Your task to perform on an android device: all mails in gmail Image 0: 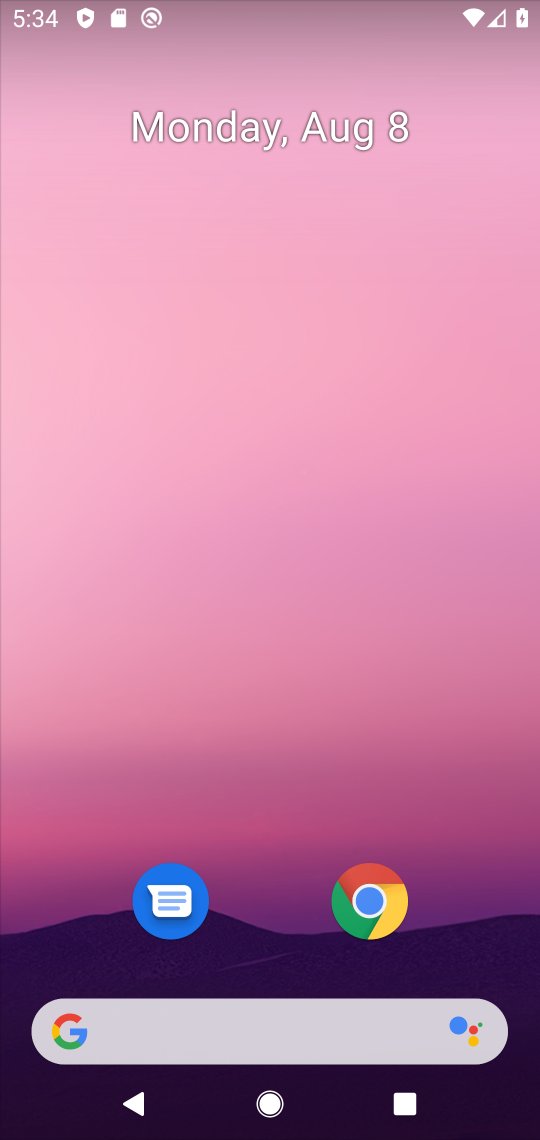
Step 0: drag from (467, 917) to (361, 220)
Your task to perform on an android device: all mails in gmail Image 1: 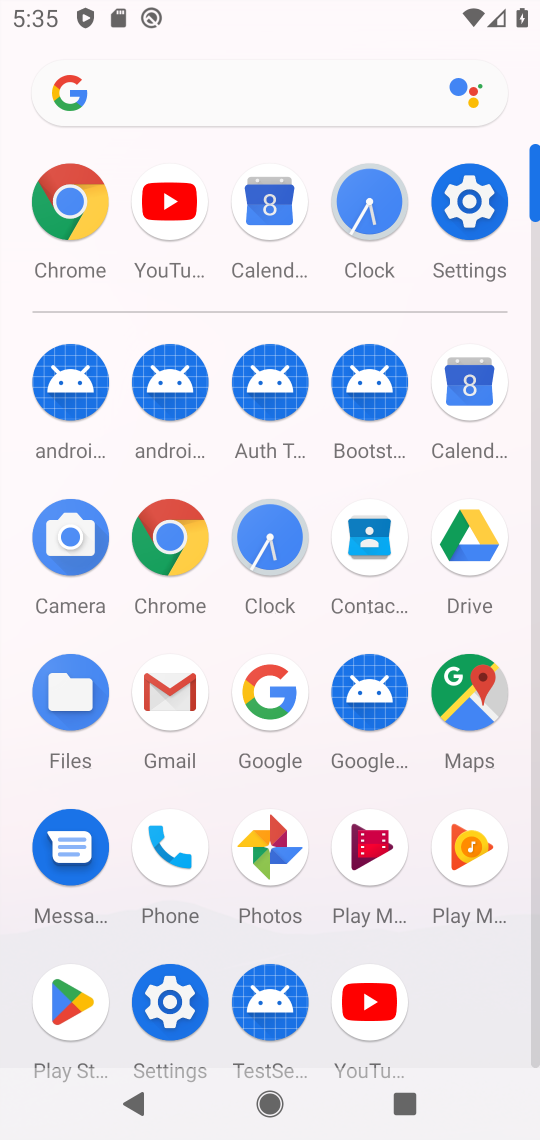
Step 1: click (154, 678)
Your task to perform on an android device: all mails in gmail Image 2: 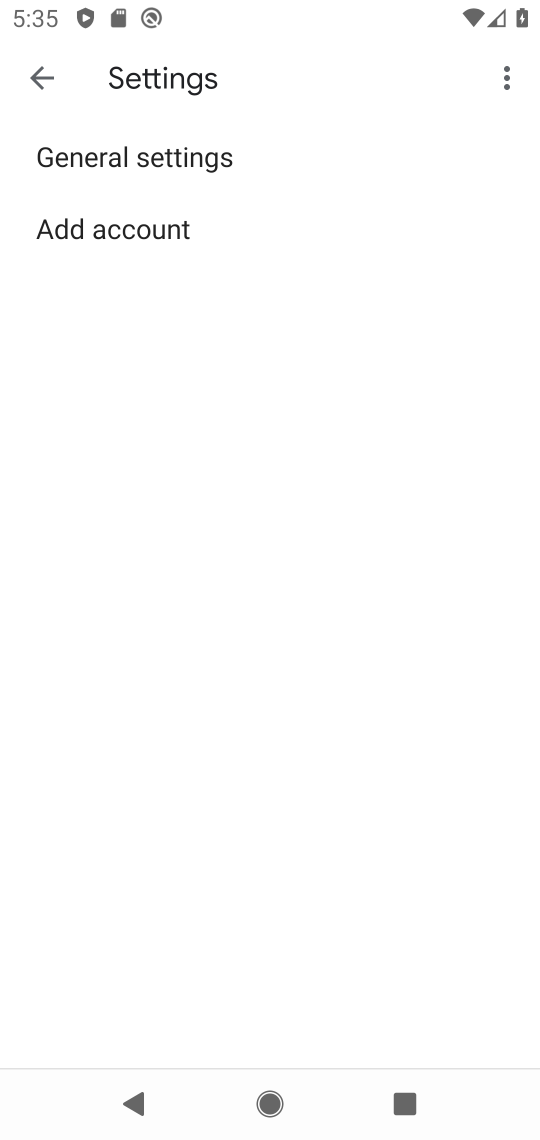
Step 2: click (43, 90)
Your task to perform on an android device: all mails in gmail Image 3: 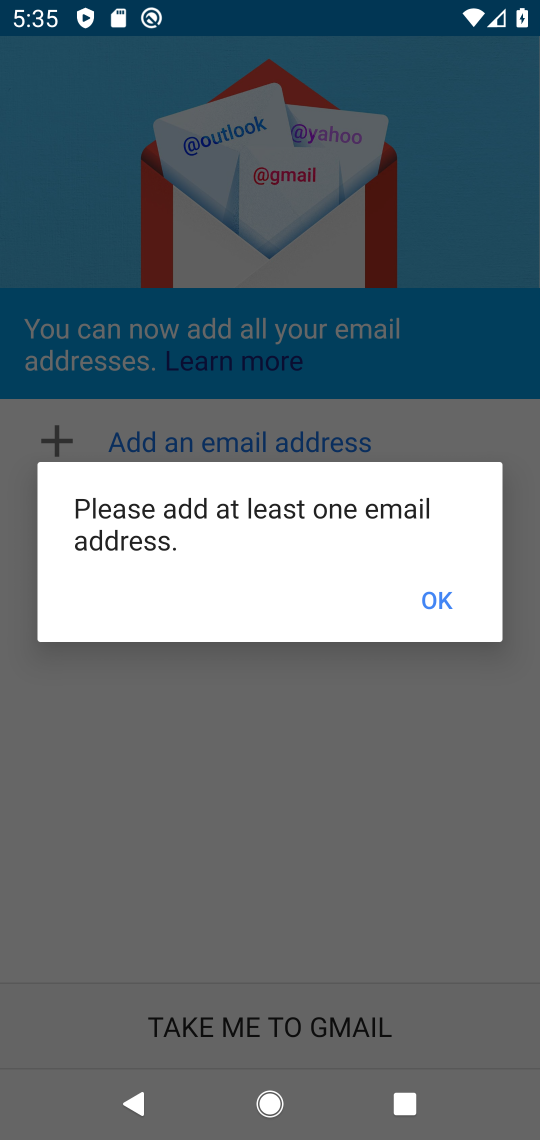
Step 3: task complete